Your task to perform on an android device: add a label to a message in the gmail app Image 0: 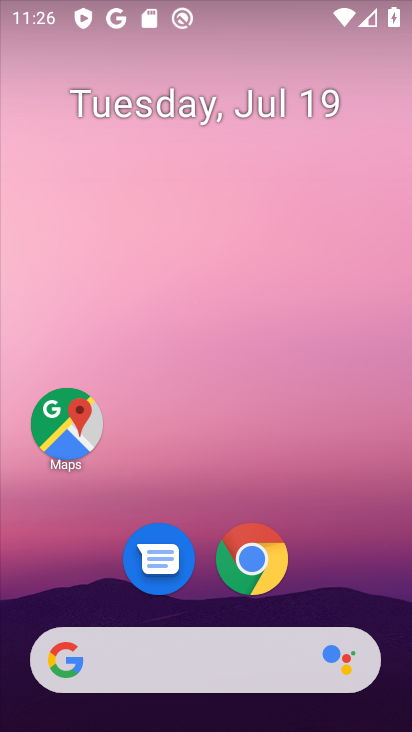
Step 0: drag from (122, 511) to (206, 59)
Your task to perform on an android device: add a label to a message in the gmail app Image 1: 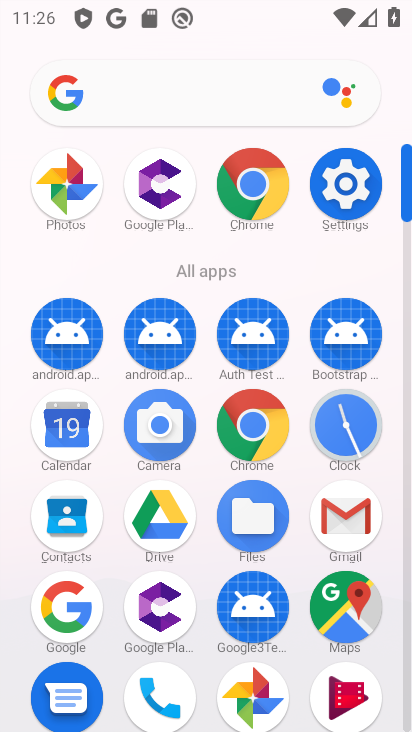
Step 1: click (336, 518)
Your task to perform on an android device: add a label to a message in the gmail app Image 2: 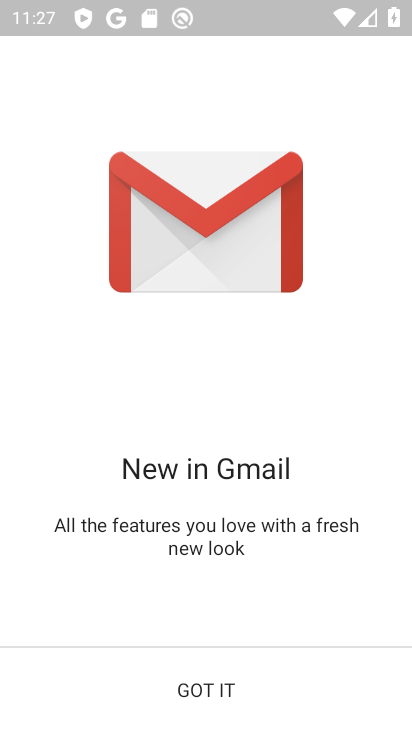
Step 2: click (107, 702)
Your task to perform on an android device: add a label to a message in the gmail app Image 3: 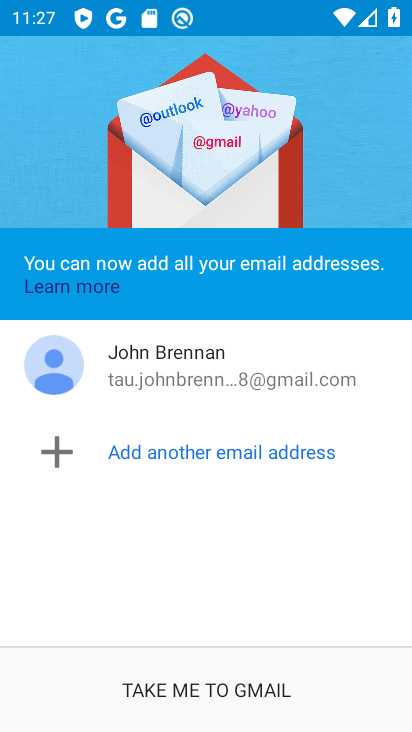
Step 3: click (197, 694)
Your task to perform on an android device: add a label to a message in the gmail app Image 4: 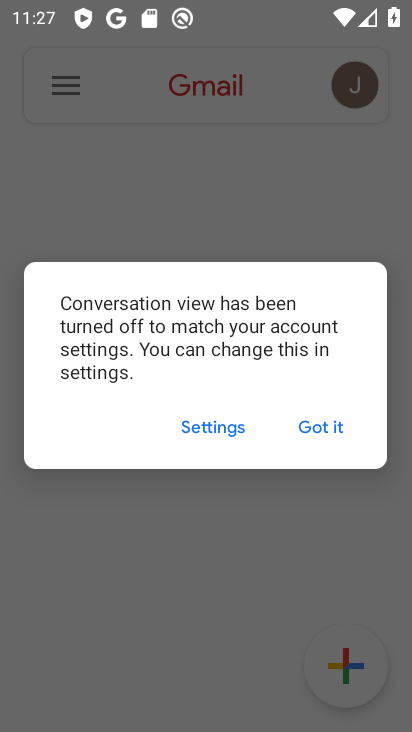
Step 4: click (326, 429)
Your task to perform on an android device: add a label to a message in the gmail app Image 5: 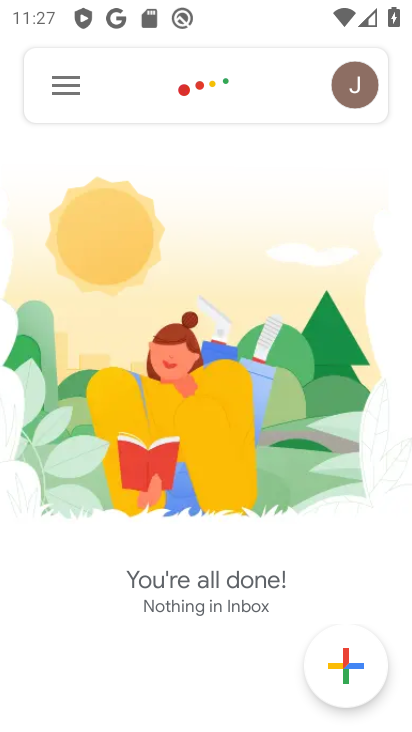
Step 5: click (66, 75)
Your task to perform on an android device: add a label to a message in the gmail app Image 6: 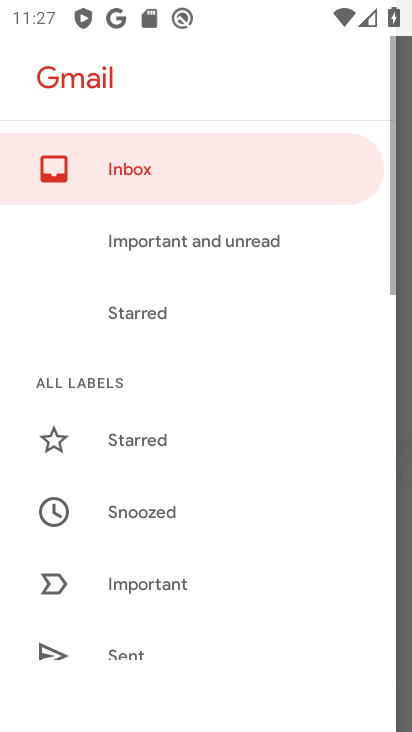
Step 6: drag from (222, 622) to (274, 144)
Your task to perform on an android device: add a label to a message in the gmail app Image 7: 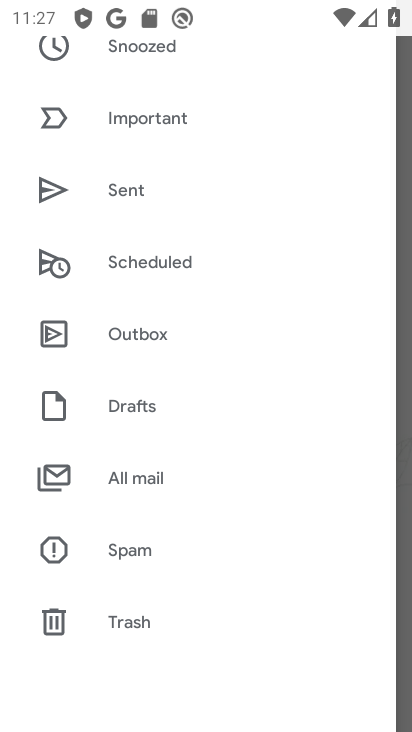
Step 7: click (118, 474)
Your task to perform on an android device: add a label to a message in the gmail app Image 8: 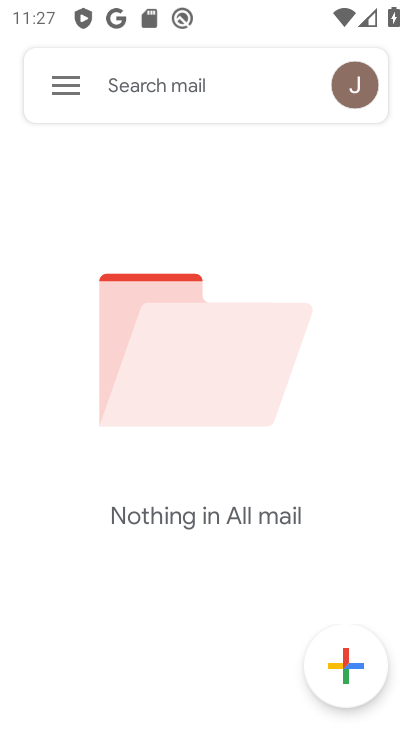
Step 8: task complete